Your task to perform on an android device: Open internet settings Image 0: 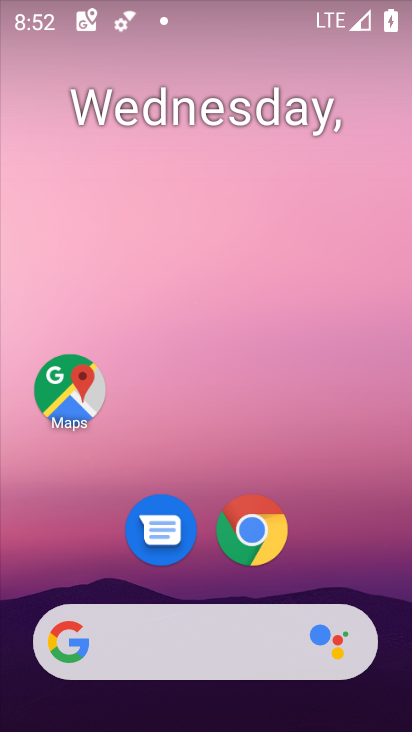
Step 0: drag from (378, 645) to (18, 53)
Your task to perform on an android device: Open internet settings Image 1: 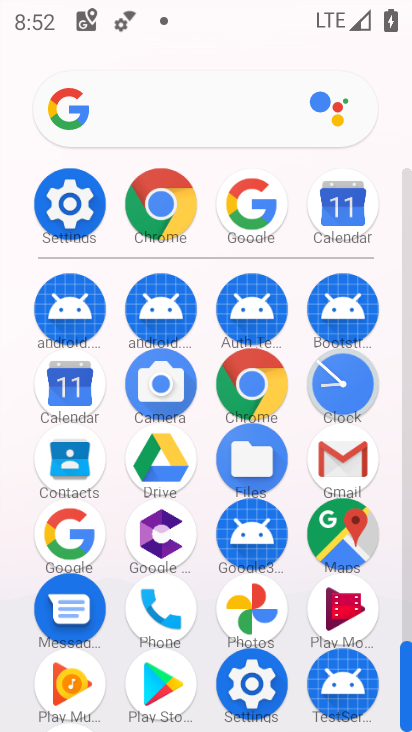
Step 1: click (253, 668)
Your task to perform on an android device: Open internet settings Image 2: 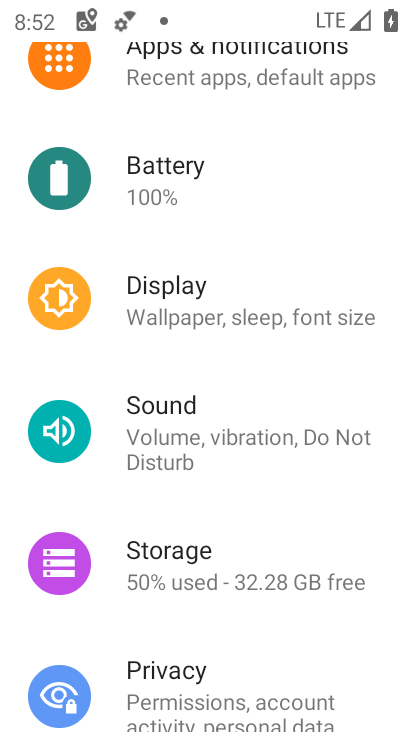
Step 2: drag from (190, 167) to (244, 714)
Your task to perform on an android device: Open internet settings Image 3: 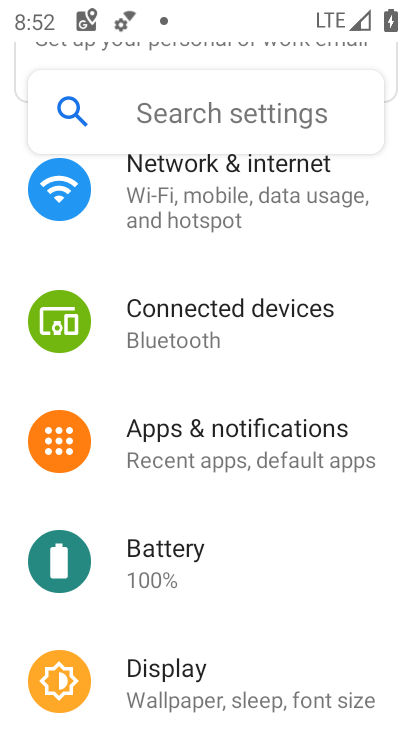
Step 3: click (213, 236)
Your task to perform on an android device: Open internet settings Image 4: 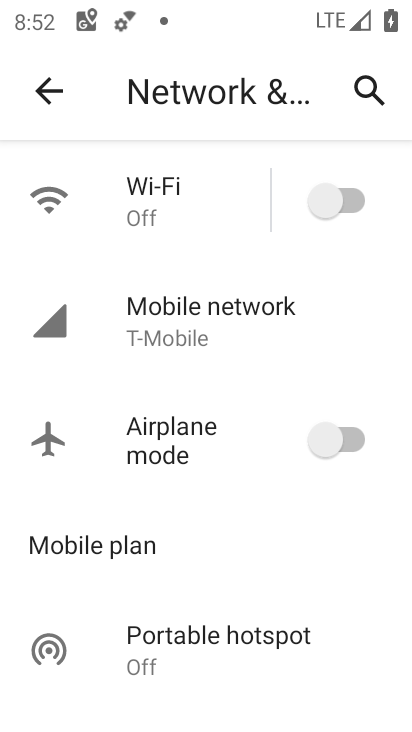
Step 4: task complete